Your task to perform on an android device: Go to settings Image 0: 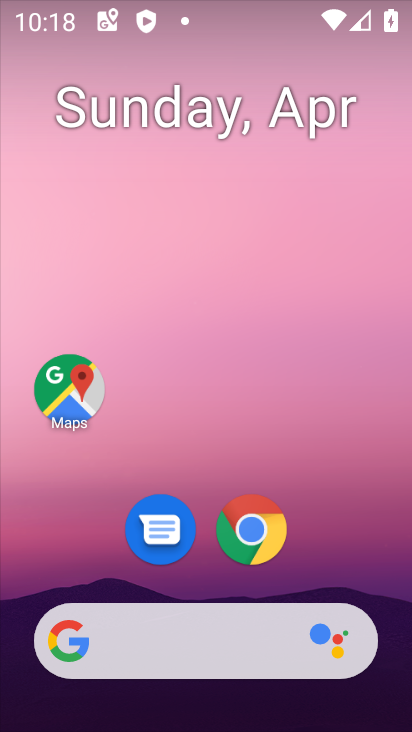
Step 0: drag from (210, 517) to (290, 123)
Your task to perform on an android device: Go to settings Image 1: 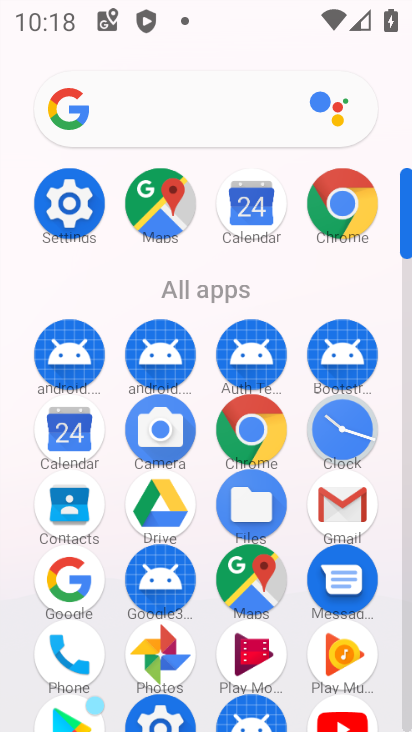
Step 1: click (70, 204)
Your task to perform on an android device: Go to settings Image 2: 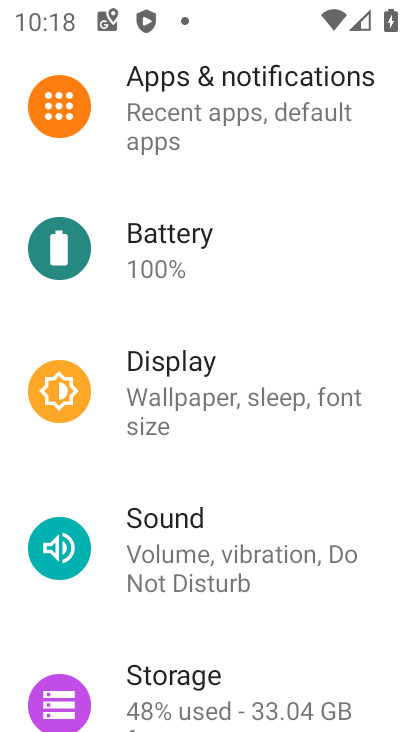
Step 2: task complete